Your task to perform on an android device: open a bookmark in the chrome app Image 0: 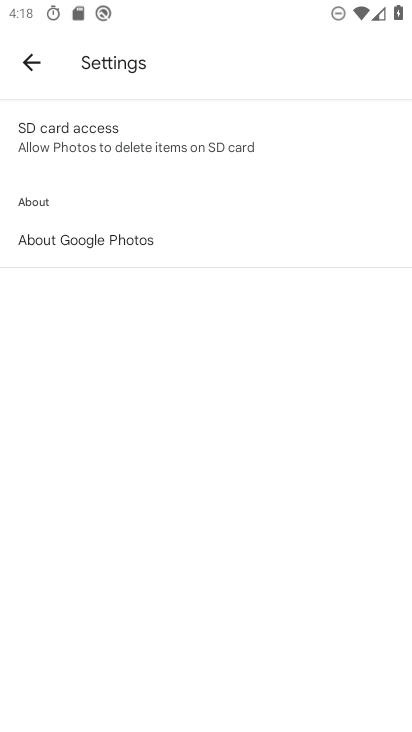
Step 0: press back button
Your task to perform on an android device: open a bookmark in the chrome app Image 1: 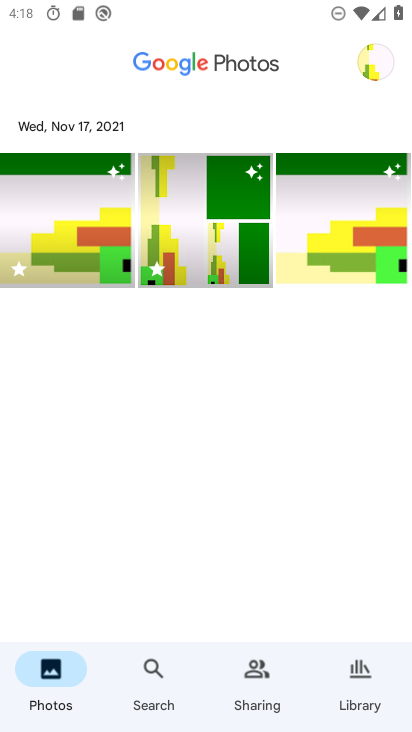
Step 1: press home button
Your task to perform on an android device: open a bookmark in the chrome app Image 2: 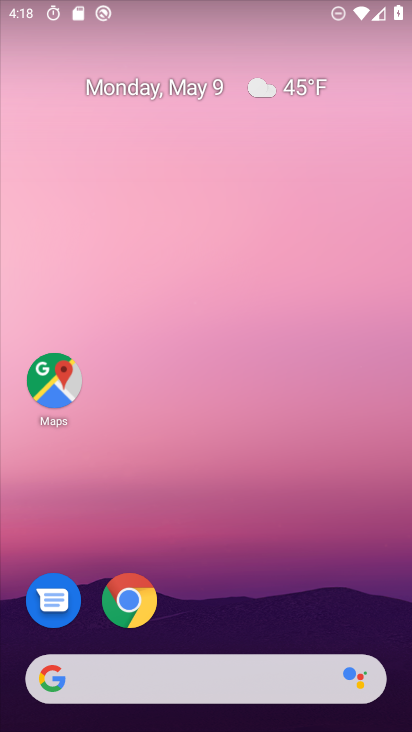
Step 2: click (129, 597)
Your task to perform on an android device: open a bookmark in the chrome app Image 3: 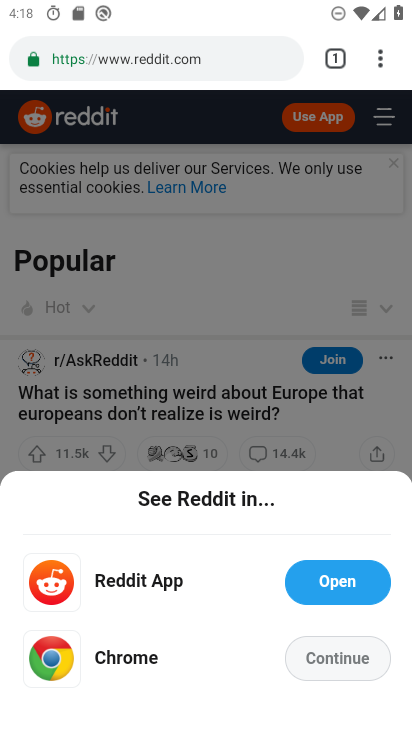
Step 3: drag from (384, 55) to (176, 626)
Your task to perform on an android device: open a bookmark in the chrome app Image 4: 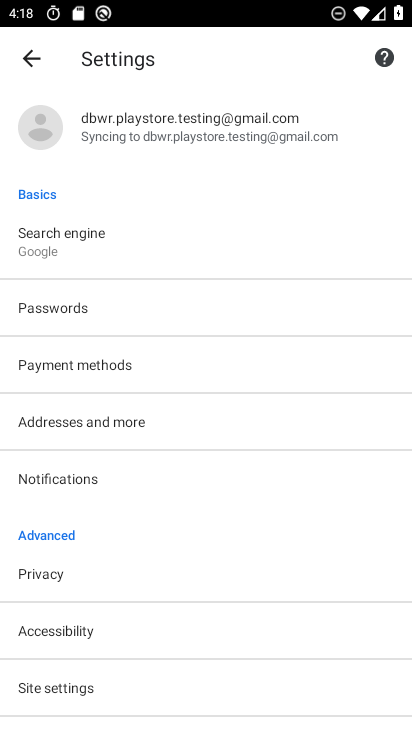
Step 4: drag from (186, 605) to (226, 237)
Your task to perform on an android device: open a bookmark in the chrome app Image 5: 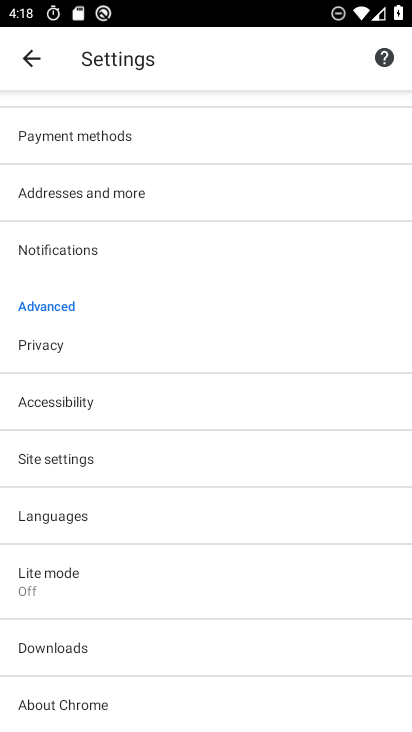
Step 5: drag from (230, 565) to (238, 395)
Your task to perform on an android device: open a bookmark in the chrome app Image 6: 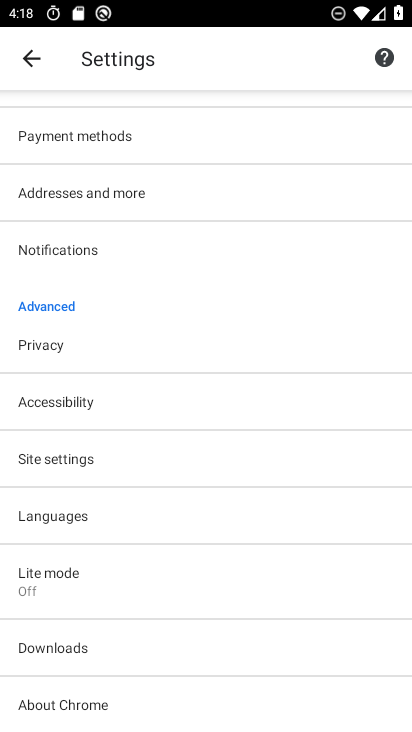
Step 6: drag from (238, 227) to (193, 669)
Your task to perform on an android device: open a bookmark in the chrome app Image 7: 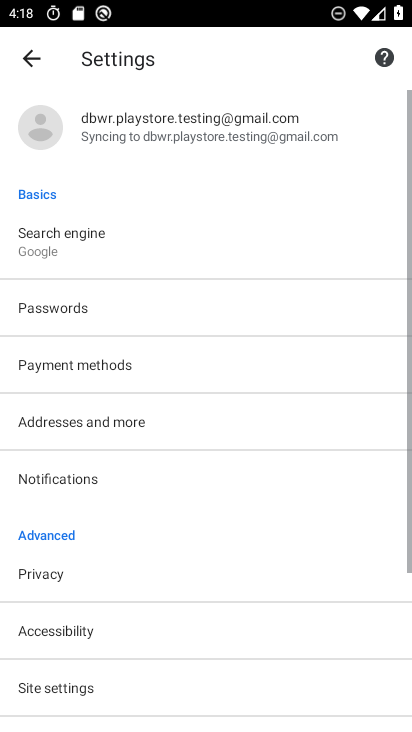
Step 7: click (26, 54)
Your task to perform on an android device: open a bookmark in the chrome app Image 8: 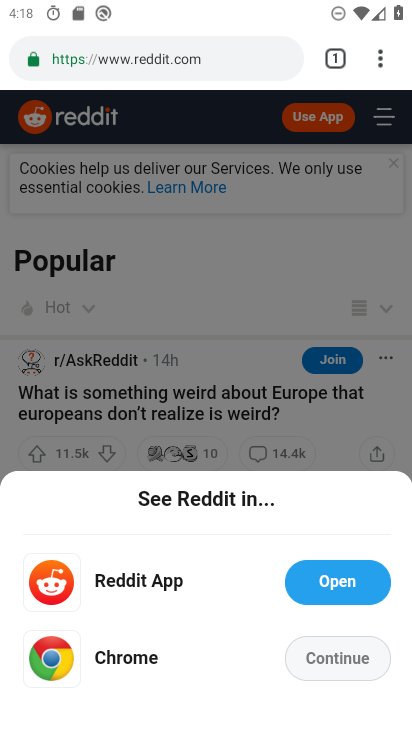
Step 8: drag from (379, 58) to (191, 224)
Your task to perform on an android device: open a bookmark in the chrome app Image 9: 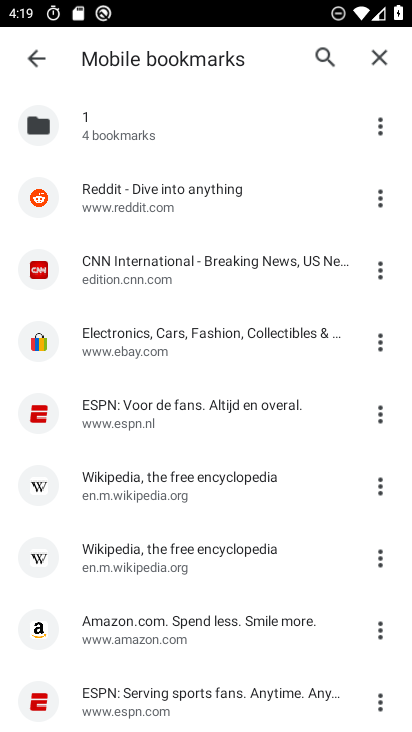
Step 9: drag from (253, 680) to (318, 197)
Your task to perform on an android device: open a bookmark in the chrome app Image 10: 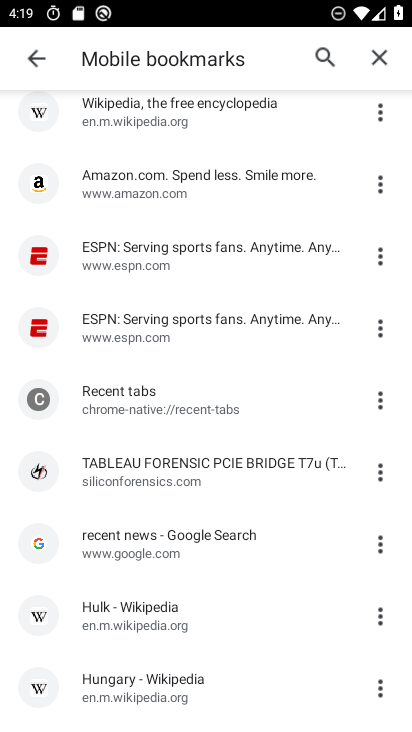
Step 10: click (379, 538)
Your task to perform on an android device: open a bookmark in the chrome app Image 11: 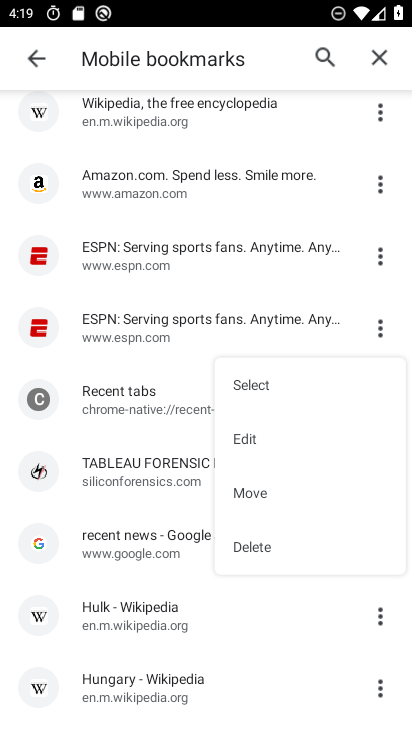
Step 11: click (320, 547)
Your task to perform on an android device: open a bookmark in the chrome app Image 12: 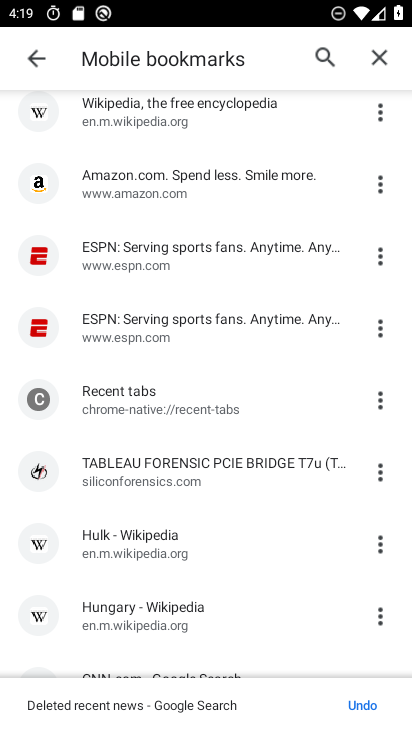
Step 12: drag from (256, 654) to (281, 273)
Your task to perform on an android device: open a bookmark in the chrome app Image 13: 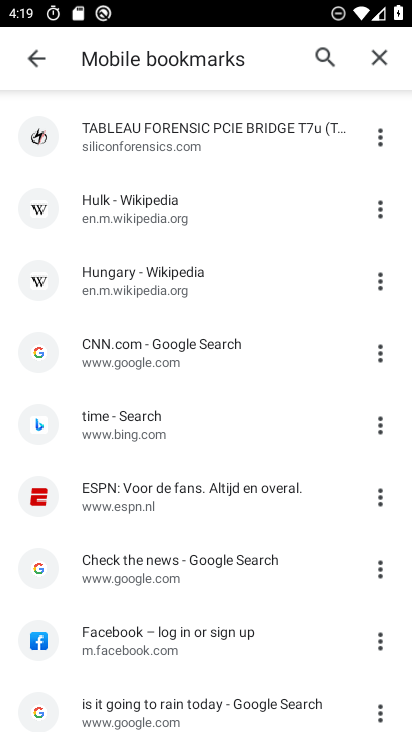
Step 13: click (377, 420)
Your task to perform on an android device: open a bookmark in the chrome app Image 14: 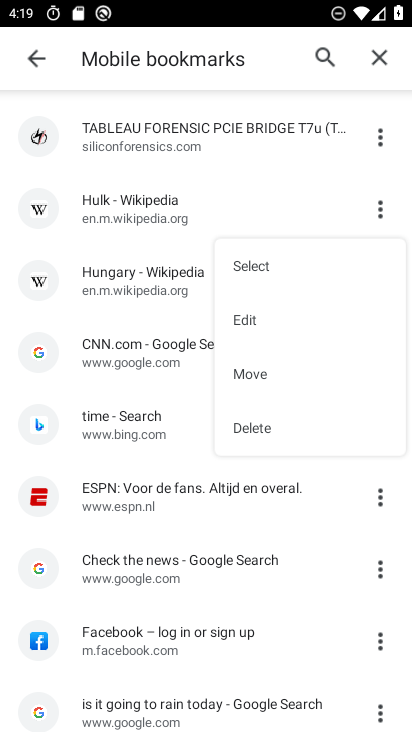
Step 14: click (293, 426)
Your task to perform on an android device: open a bookmark in the chrome app Image 15: 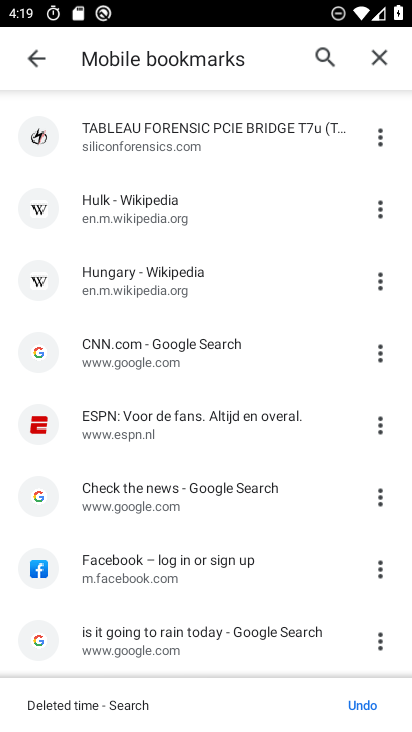
Step 15: drag from (228, 624) to (247, 262)
Your task to perform on an android device: open a bookmark in the chrome app Image 16: 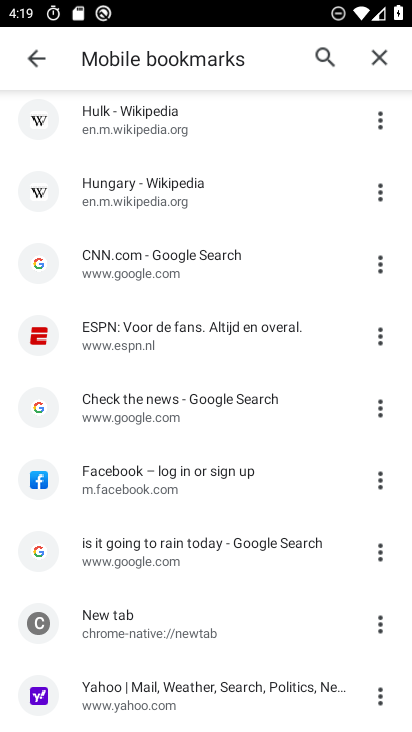
Step 16: click (386, 406)
Your task to perform on an android device: open a bookmark in the chrome app Image 17: 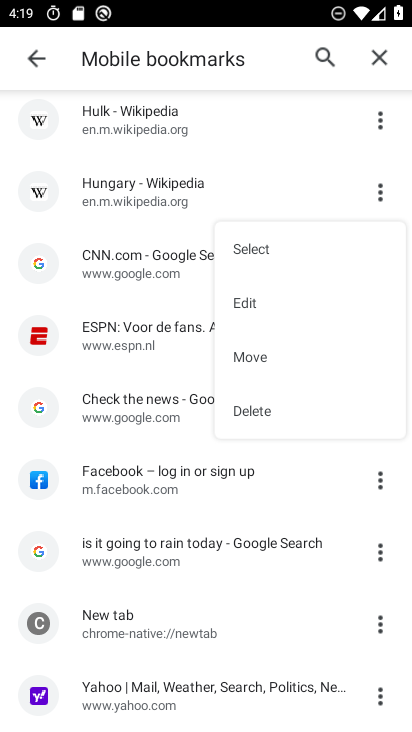
Step 17: click (331, 412)
Your task to perform on an android device: open a bookmark in the chrome app Image 18: 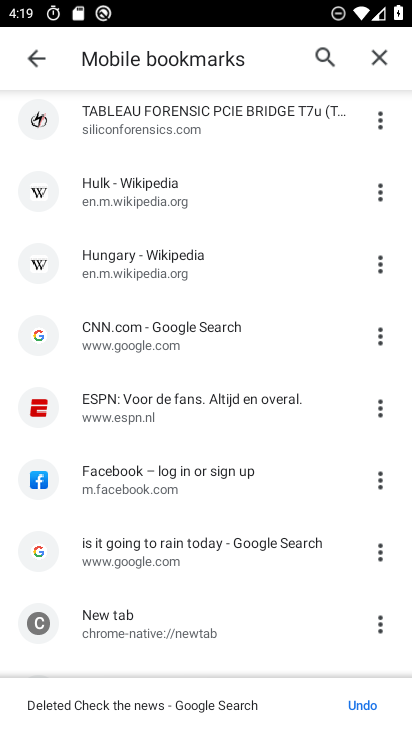
Step 18: drag from (233, 510) to (222, 198)
Your task to perform on an android device: open a bookmark in the chrome app Image 19: 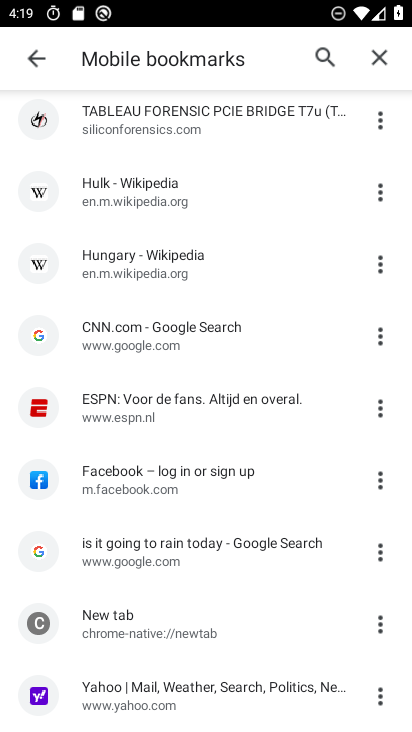
Step 19: click (373, 557)
Your task to perform on an android device: open a bookmark in the chrome app Image 20: 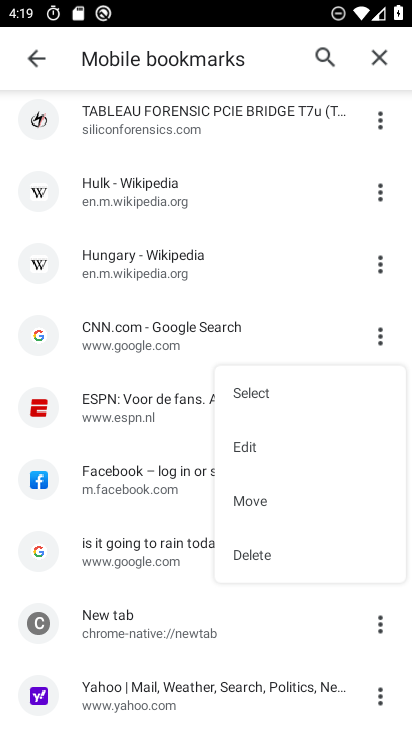
Step 20: click (320, 564)
Your task to perform on an android device: open a bookmark in the chrome app Image 21: 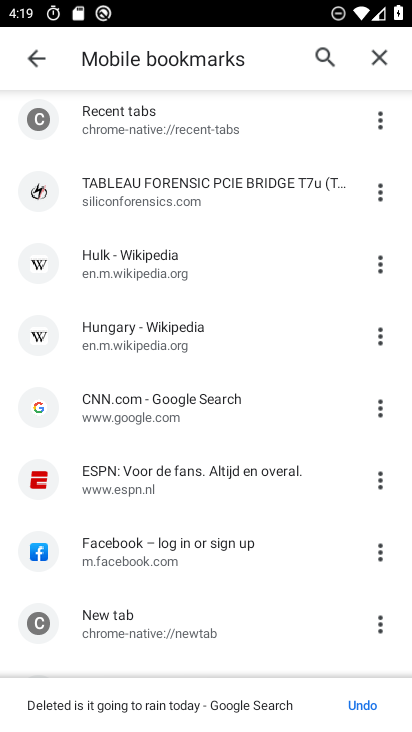
Step 21: click (378, 621)
Your task to perform on an android device: open a bookmark in the chrome app Image 22: 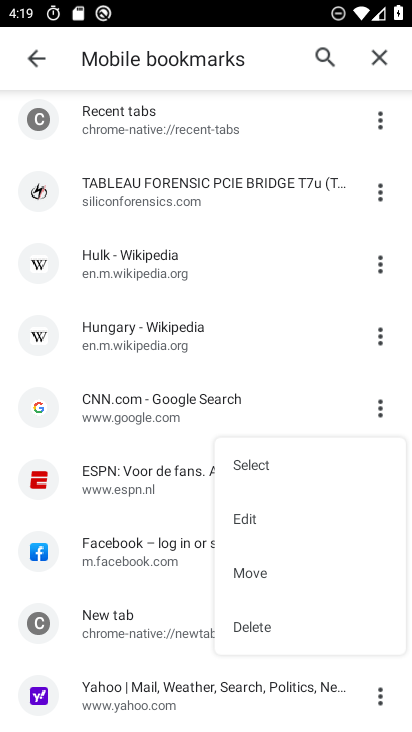
Step 22: task complete